Your task to perform on an android device: Open the calendar app, open the side menu, and click the "Day" option Image 0: 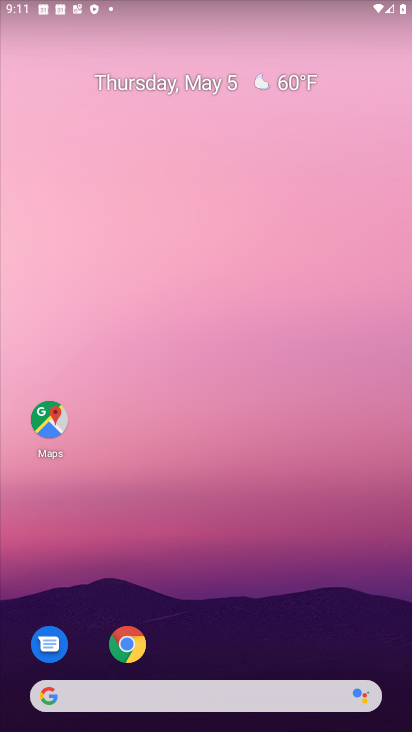
Step 0: drag from (190, 632) to (186, 72)
Your task to perform on an android device: Open the calendar app, open the side menu, and click the "Day" option Image 1: 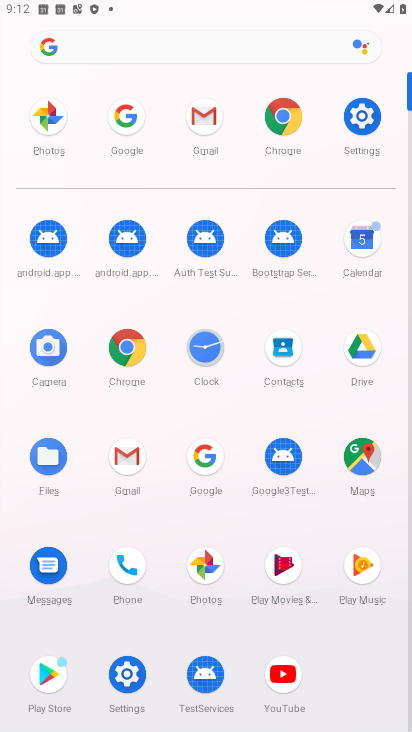
Step 1: click (367, 236)
Your task to perform on an android device: Open the calendar app, open the side menu, and click the "Day" option Image 2: 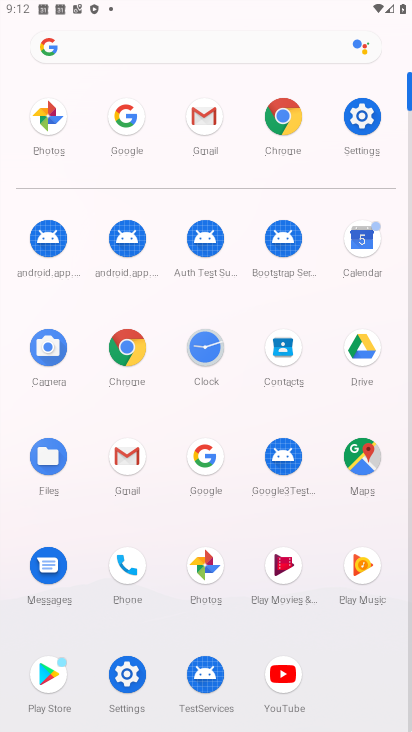
Step 2: click (367, 236)
Your task to perform on an android device: Open the calendar app, open the side menu, and click the "Day" option Image 3: 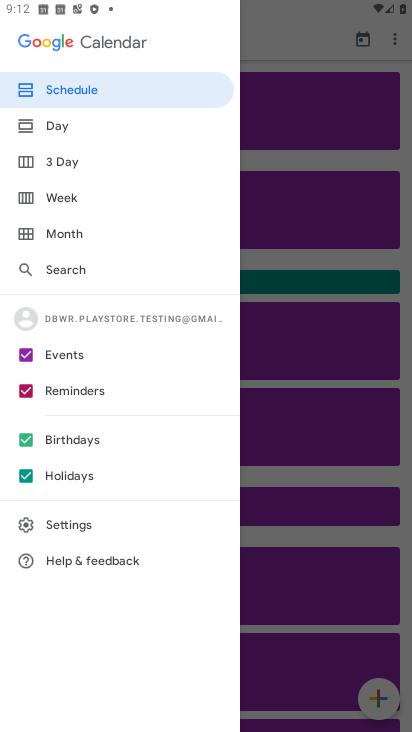
Step 3: click (71, 113)
Your task to perform on an android device: Open the calendar app, open the side menu, and click the "Day" option Image 4: 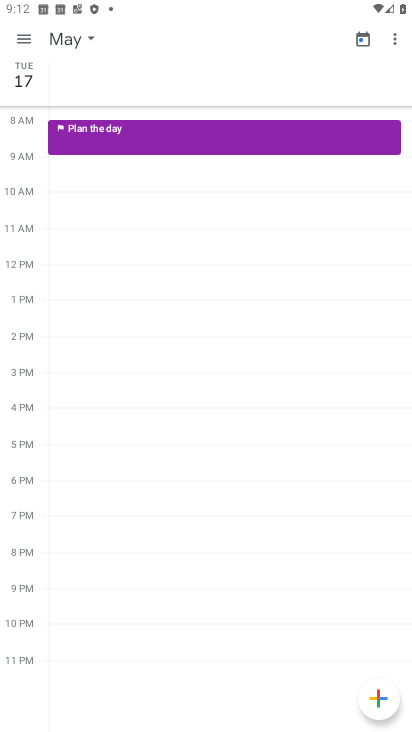
Step 4: task complete